Your task to perform on an android device: Open Google Maps Image 0: 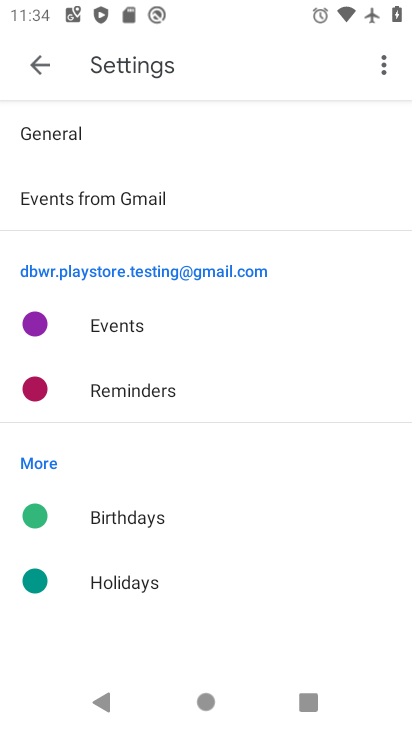
Step 0: press home button
Your task to perform on an android device: Open Google Maps Image 1: 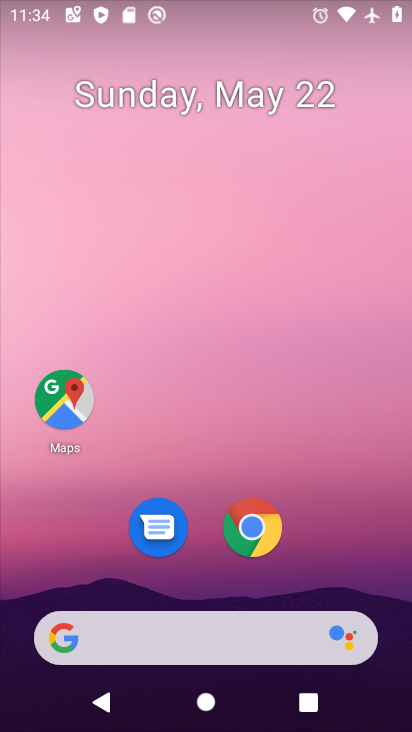
Step 1: click (31, 415)
Your task to perform on an android device: Open Google Maps Image 2: 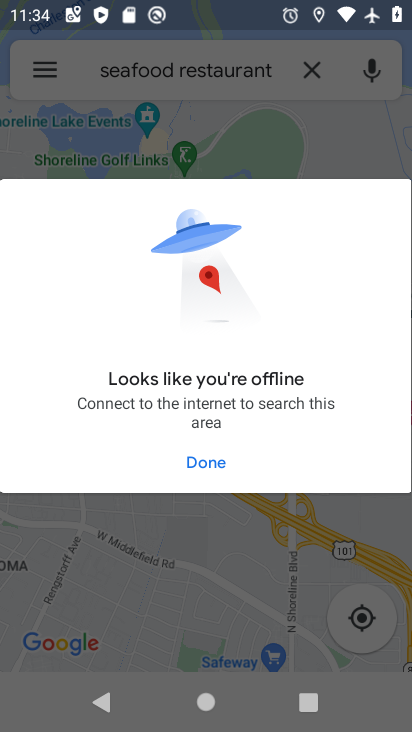
Step 2: click (178, 463)
Your task to perform on an android device: Open Google Maps Image 3: 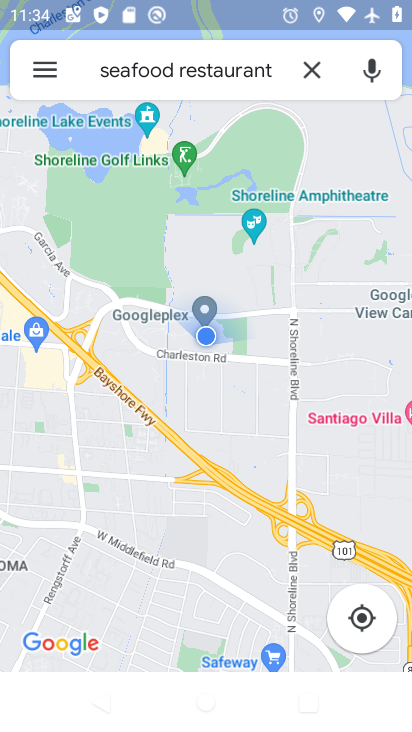
Step 3: click (306, 68)
Your task to perform on an android device: Open Google Maps Image 4: 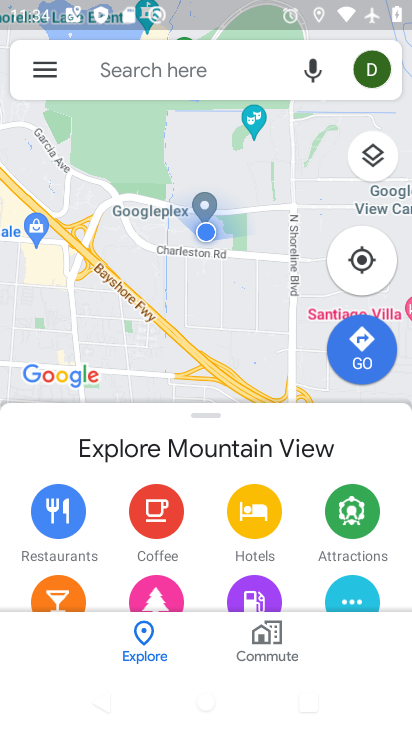
Step 4: task complete